Your task to perform on an android device: Open settings on Google Maps Image 0: 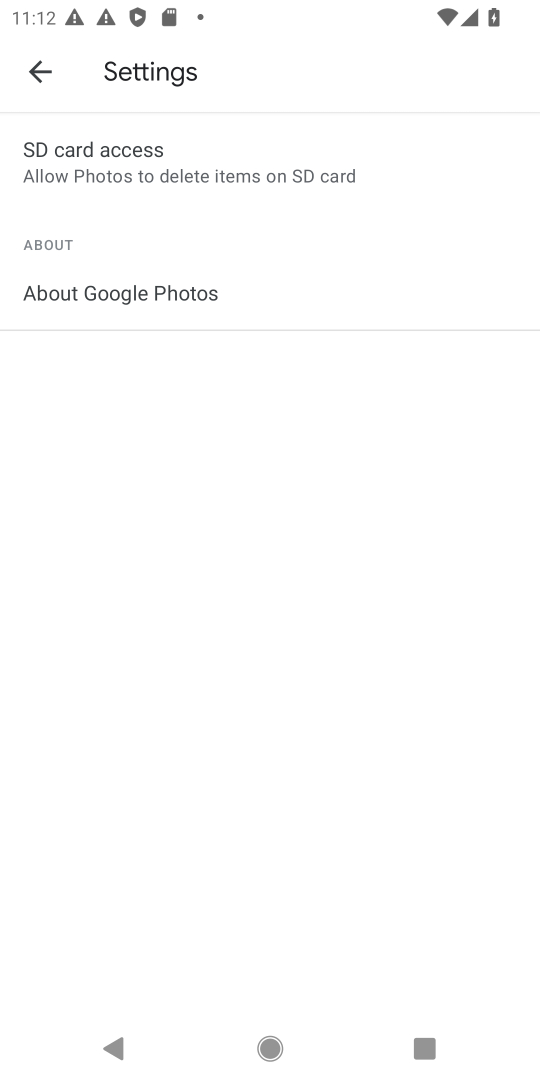
Step 0: press home button
Your task to perform on an android device: Open settings on Google Maps Image 1: 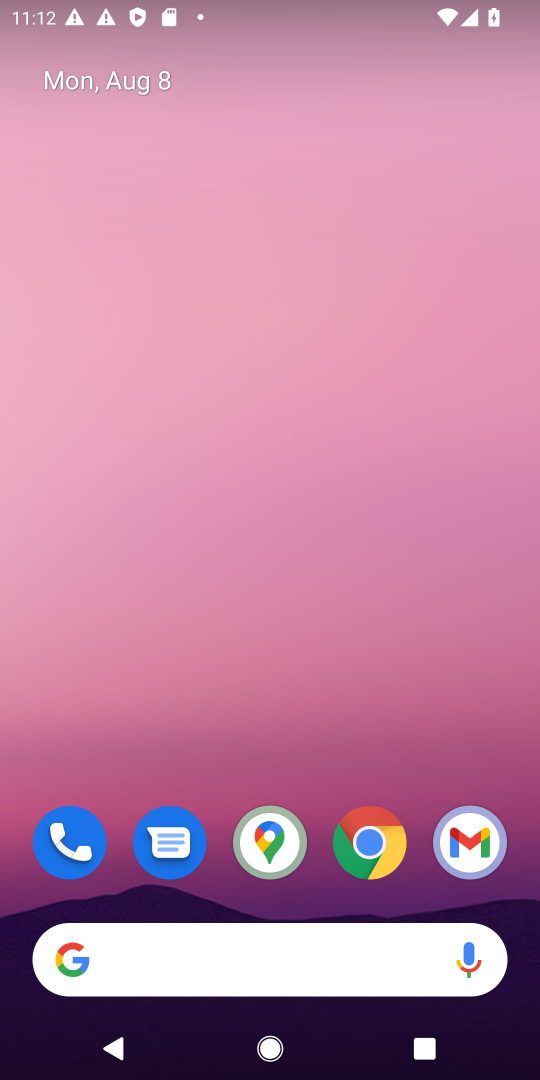
Step 1: click (263, 836)
Your task to perform on an android device: Open settings on Google Maps Image 2: 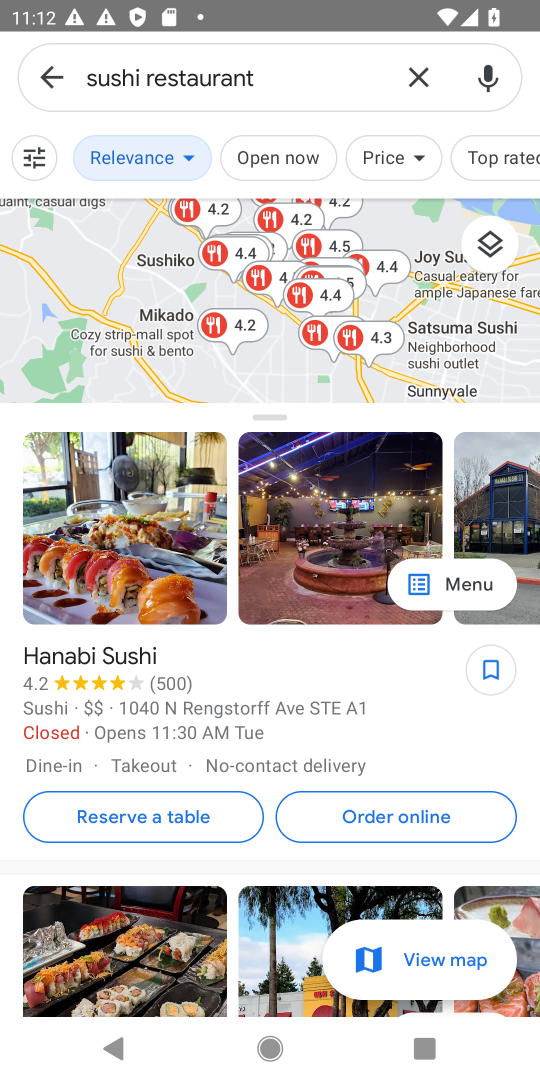
Step 2: click (42, 90)
Your task to perform on an android device: Open settings on Google Maps Image 3: 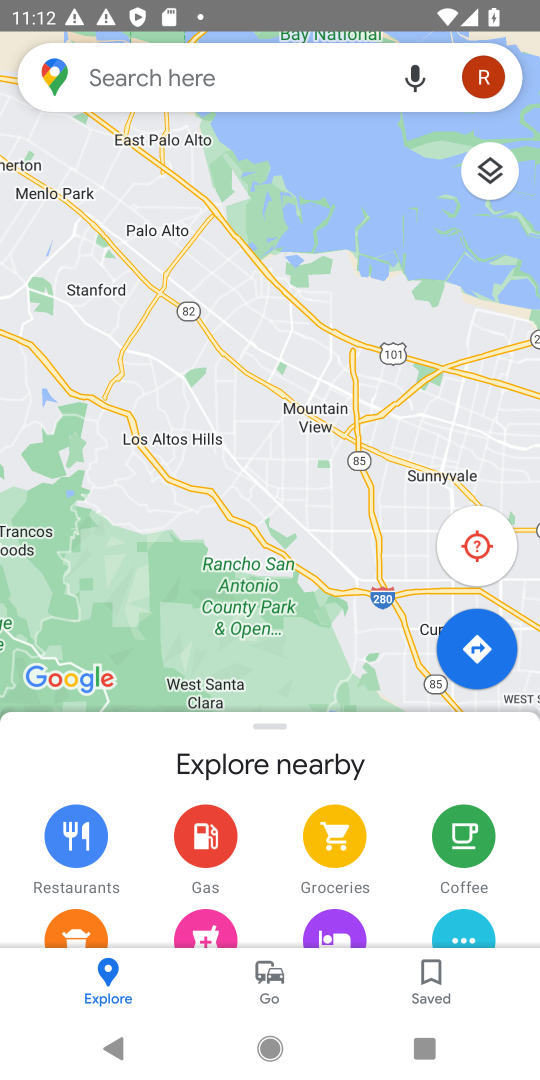
Step 3: click (51, 76)
Your task to perform on an android device: Open settings on Google Maps Image 4: 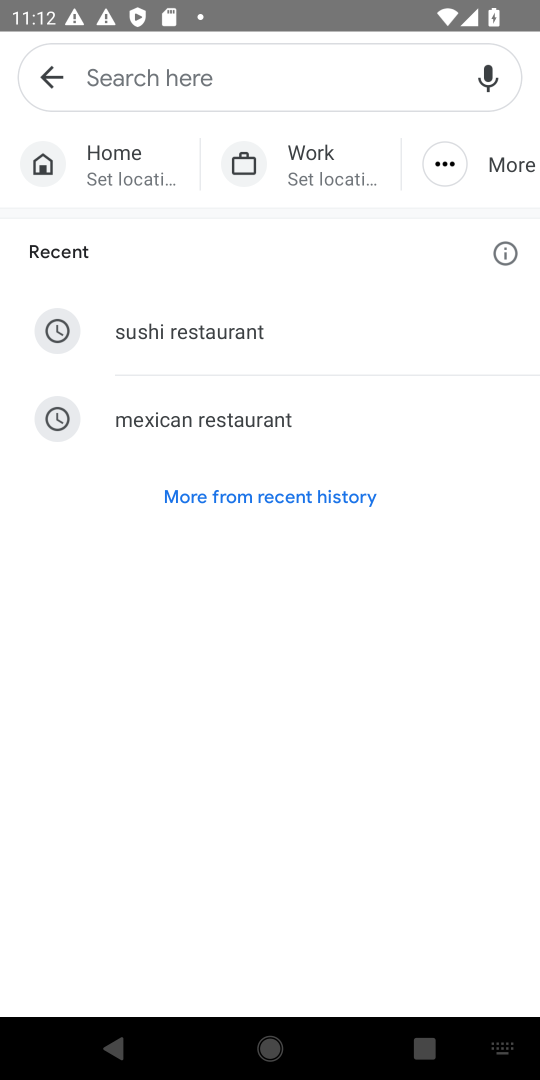
Step 4: click (447, 159)
Your task to perform on an android device: Open settings on Google Maps Image 5: 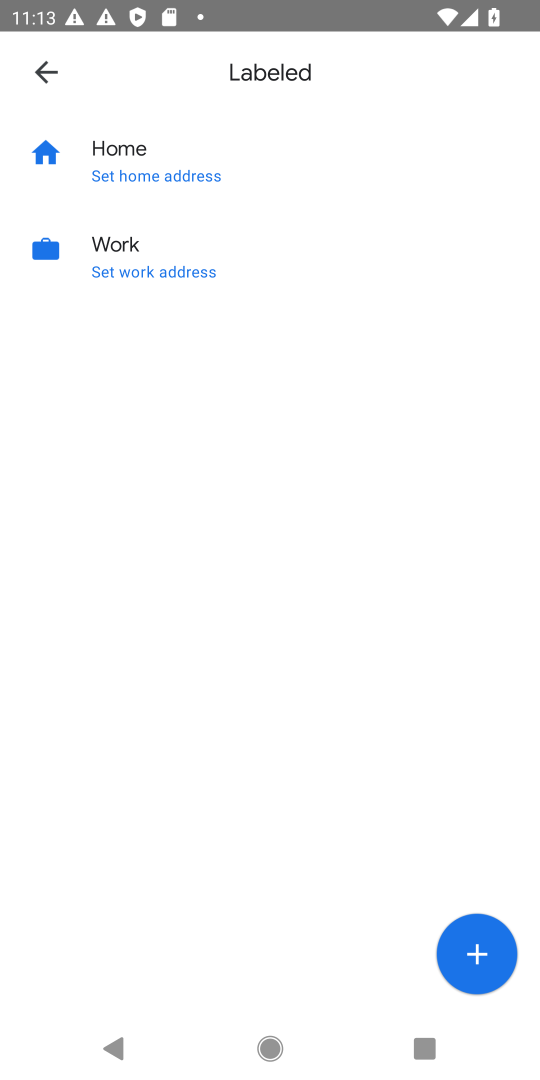
Step 5: click (39, 78)
Your task to perform on an android device: Open settings on Google Maps Image 6: 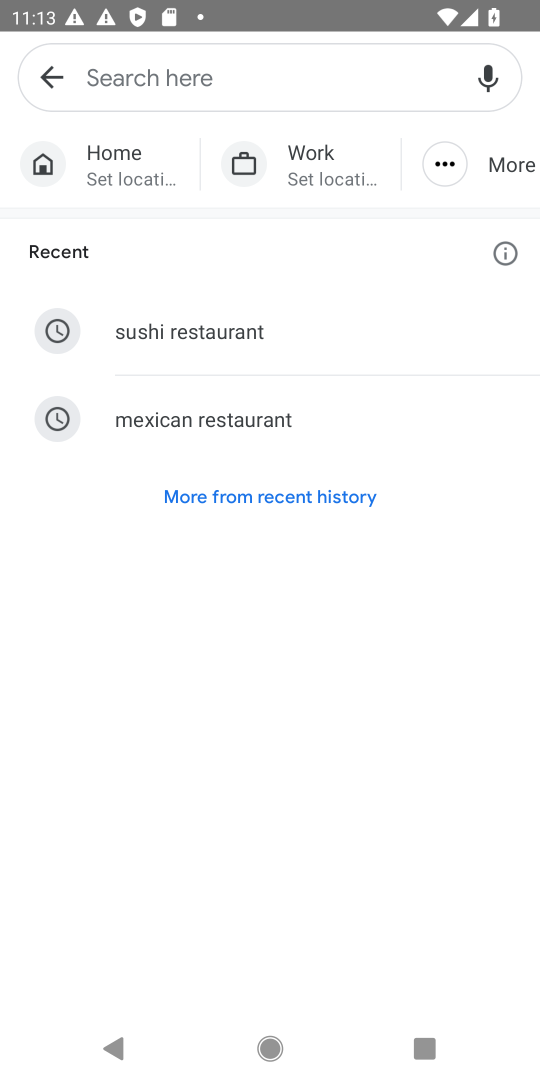
Step 6: click (39, 90)
Your task to perform on an android device: Open settings on Google Maps Image 7: 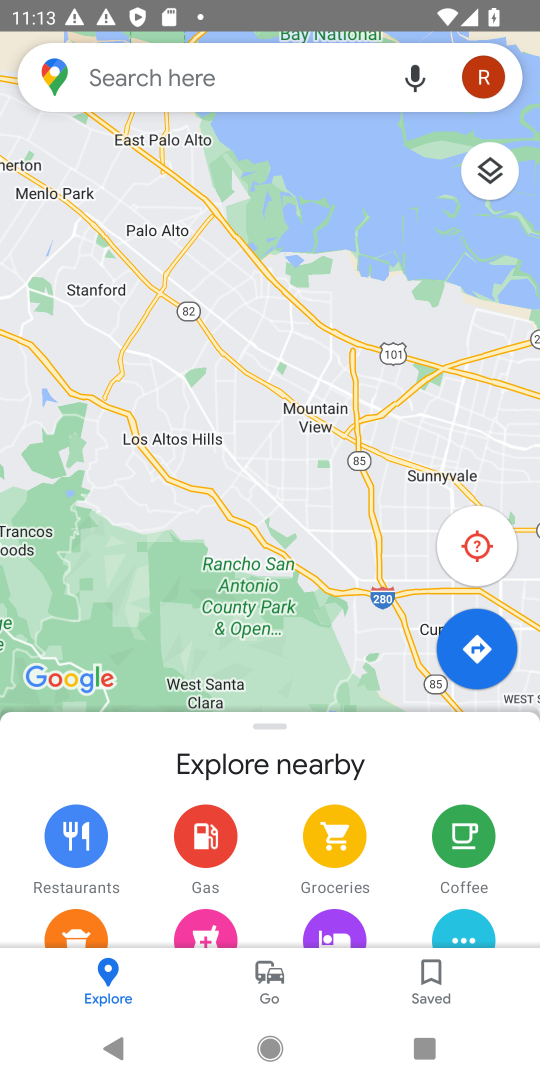
Step 7: click (474, 68)
Your task to perform on an android device: Open settings on Google Maps Image 8: 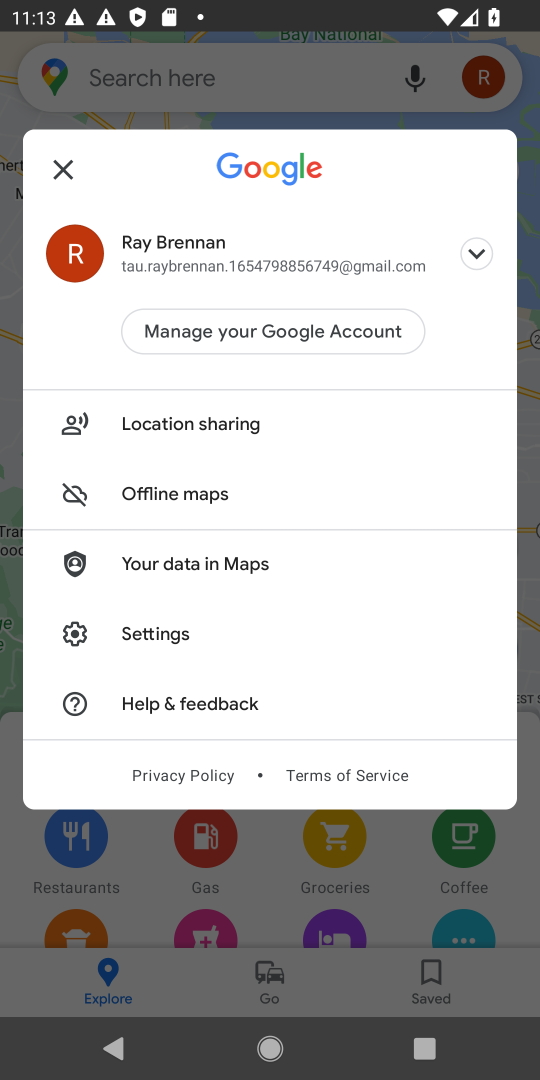
Step 8: click (146, 637)
Your task to perform on an android device: Open settings on Google Maps Image 9: 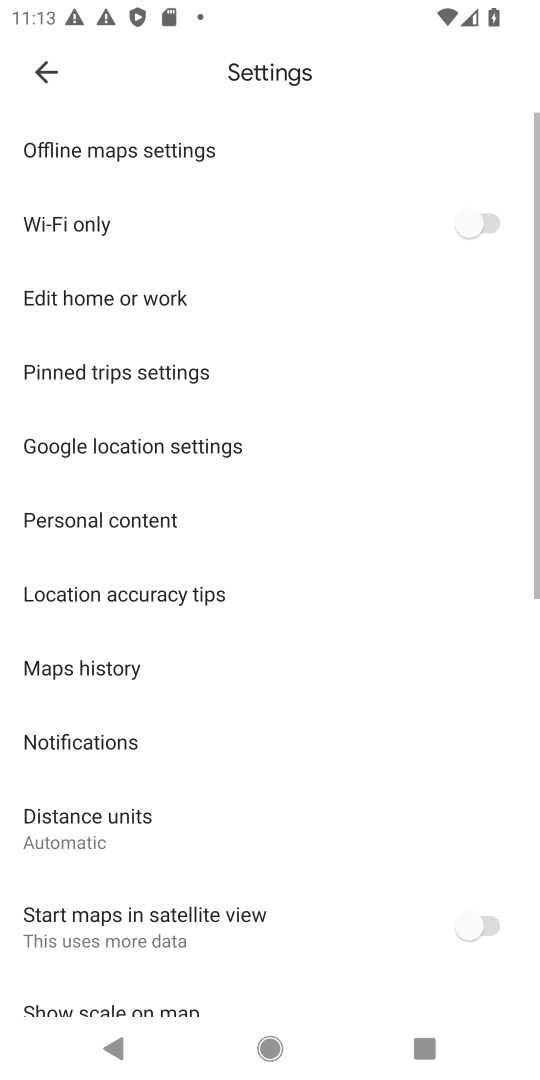
Step 9: task complete